Your task to perform on an android device: Go to battery settings Image 0: 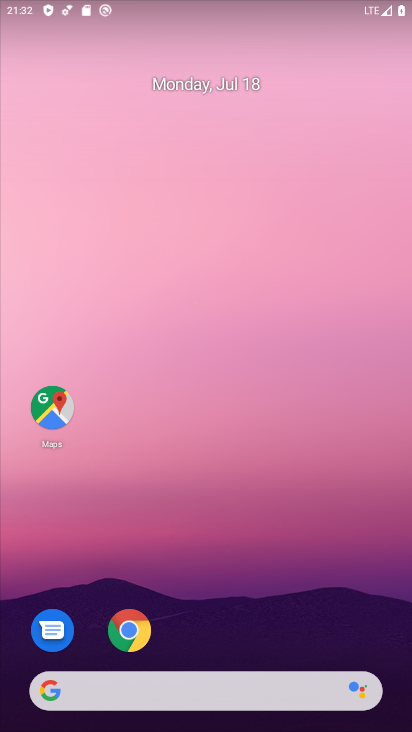
Step 0: drag from (181, 644) to (231, 331)
Your task to perform on an android device: Go to battery settings Image 1: 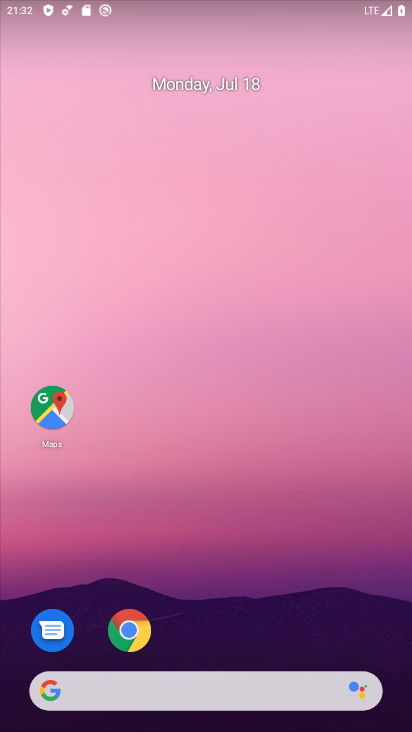
Step 1: drag from (267, 623) to (261, 276)
Your task to perform on an android device: Go to battery settings Image 2: 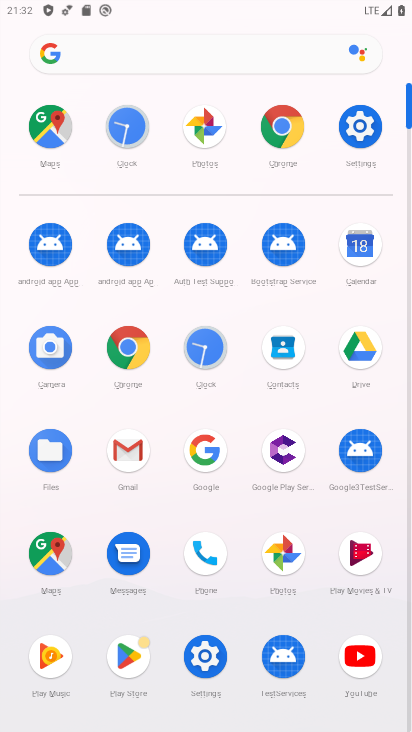
Step 2: click (362, 123)
Your task to perform on an android device: Go to battery settings Image 3: 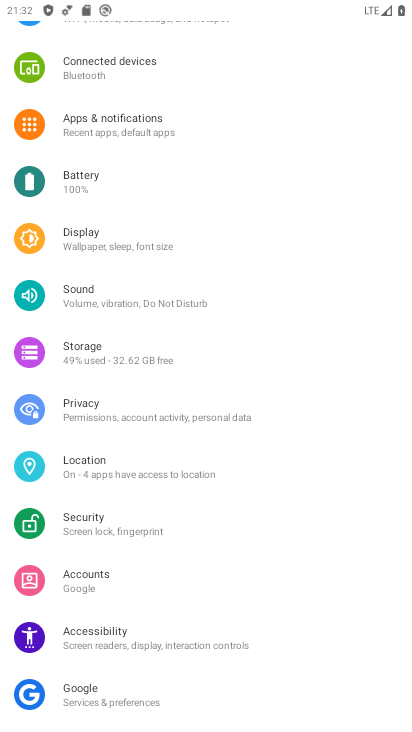
Step 3: click (96, 188)
Your task to perform on an android device: Go to battery settings Image 4: 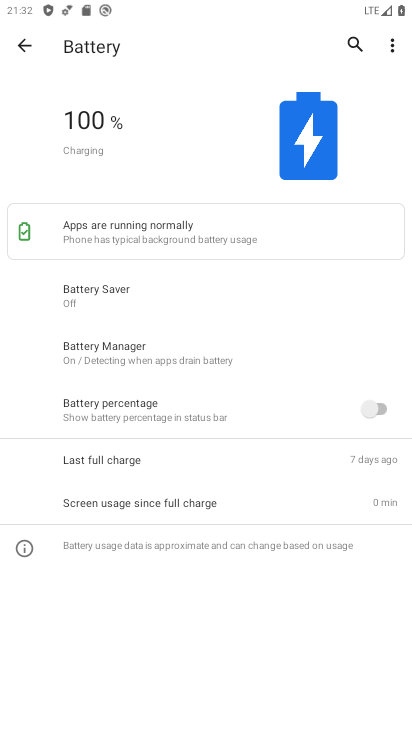
Step 4: task complete